Your task to perform on an android device: Search for the new Nintendo switch on Best Buy Image 0: 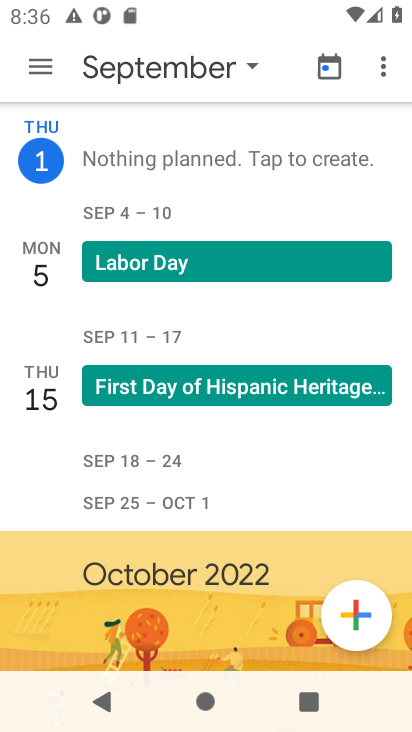
Step 0: press home button
Your task to perform on an android device: Search for the new Nintendo switch on Best Buy Image 1: 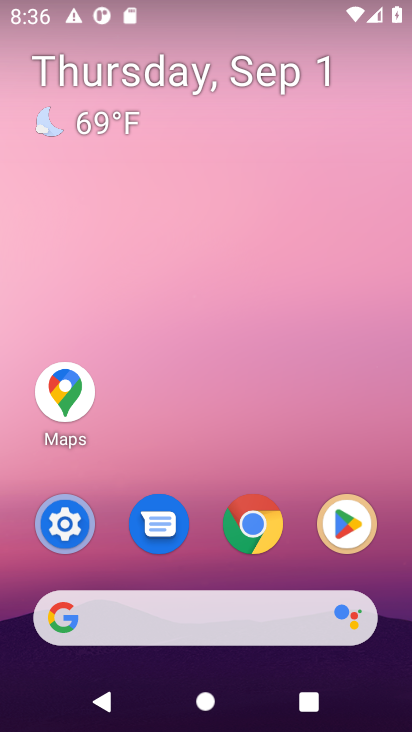
Step 1: click (247, 534)
Your task to perform on an android device: Search for the new Nintendo switch on Best Buy Image 2: 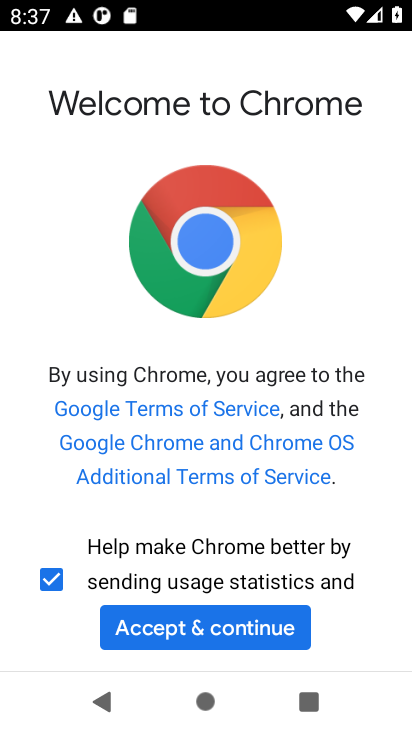
Step 2: click (241, 638)
Your task to perform on an android device: Search for the new Nintendo switch on Best Buy Image 3: 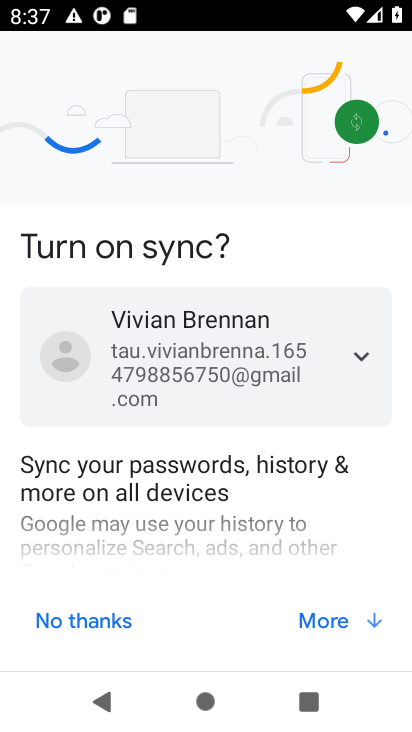
Step 3: click (334, 629)
Your task to perform on an android device: Search for the new Nintendo switch on Best Buy Image 4: 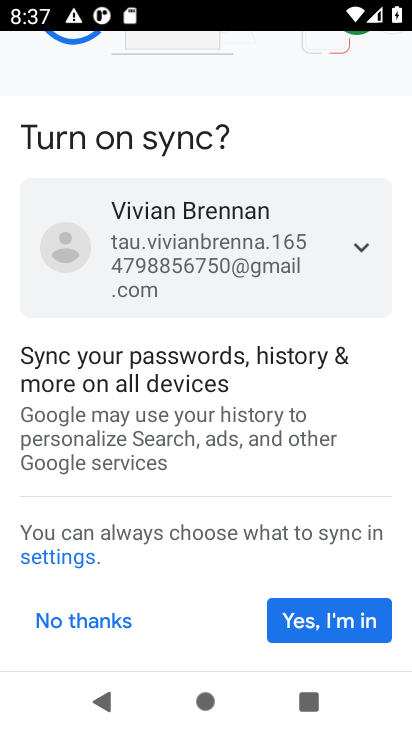
Step 4: click (342, 633)
Your task to perform on an android device: Search for the new Nintendo switch on Best Buy Image 5: 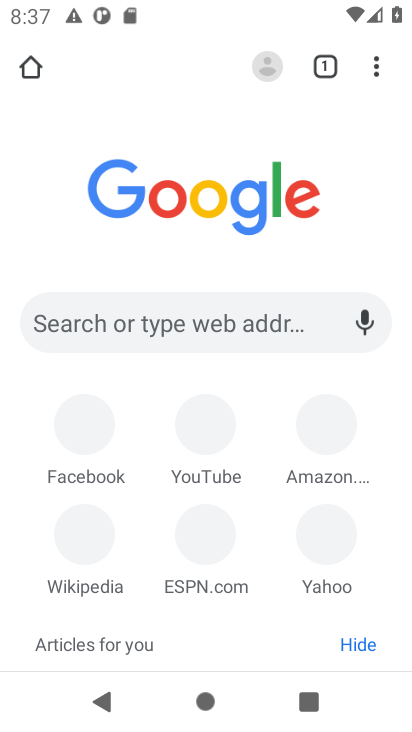
Step 5: click (189, 66)
Your task to perform on an android device: Search for the new Nintendo switch on Best Buy Image 6: 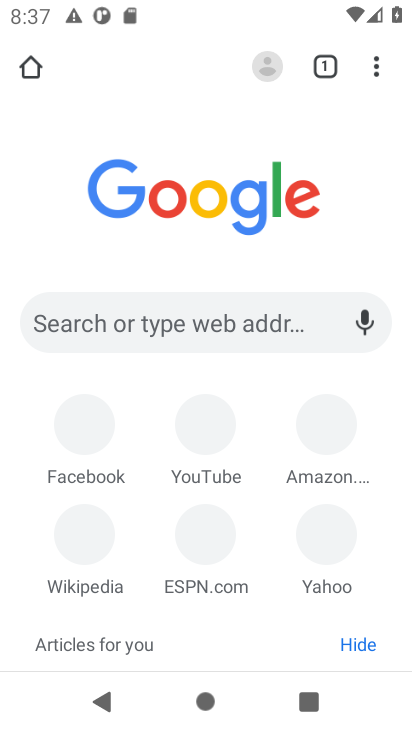
Step 6: click (205, 330)
Your task to perform on an android device: Search for the new Nintendo switch on Best Buy Image 7: 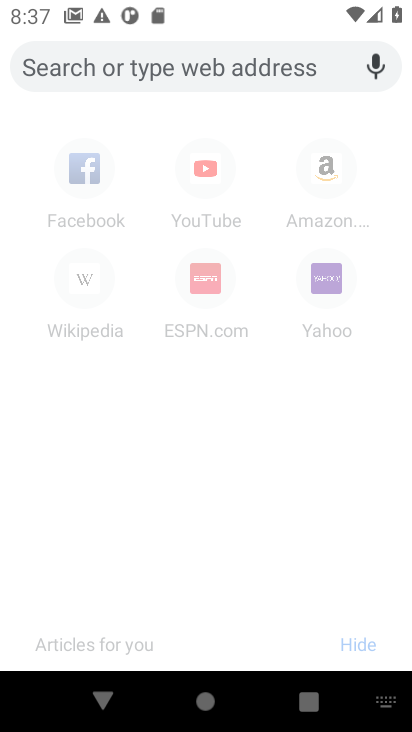
Step 7: type "best buy"
Your task to perform on an android device: Search for the new Nintendo switch on Best Buy Image 8: 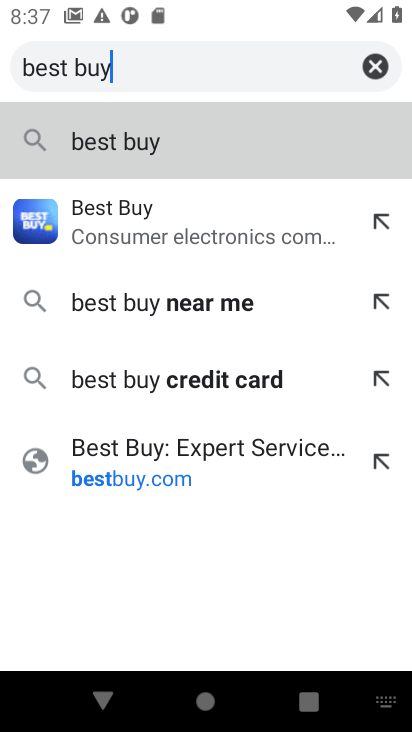
Step 8: click (163, 212)
Your task to perform on an android device: Search for the new Nintendo switch on Best Buy Image 9: 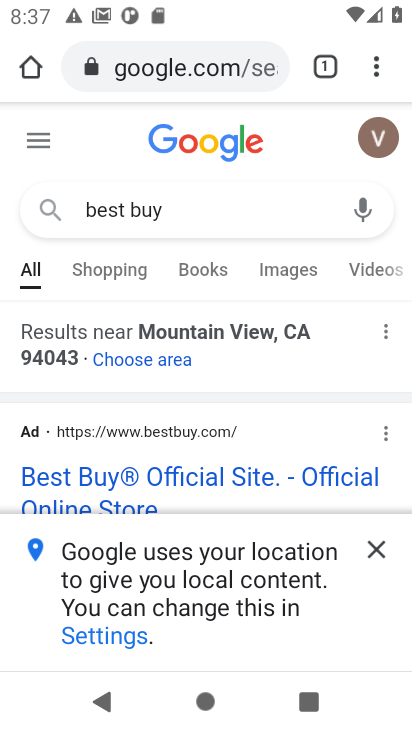
Step 9: click (382, 557)
Your task to perform on an android device: Search for the new Nintendo switch on Best Buy Image 10: 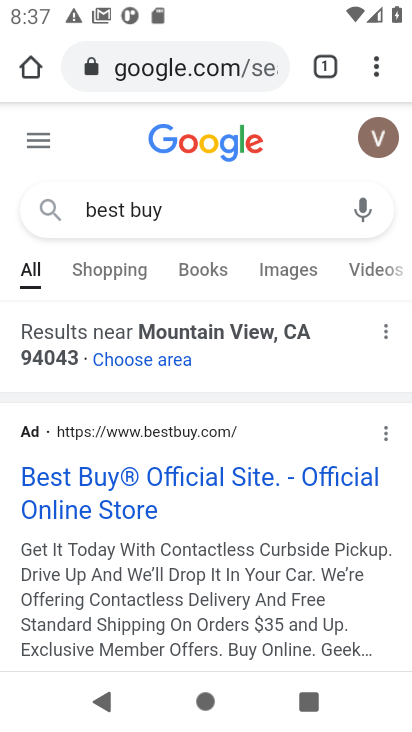
Step 10: click (134, 496)
Your task to perform on an android device: Search for the new Nintendo switch on Best Buy Image 11: 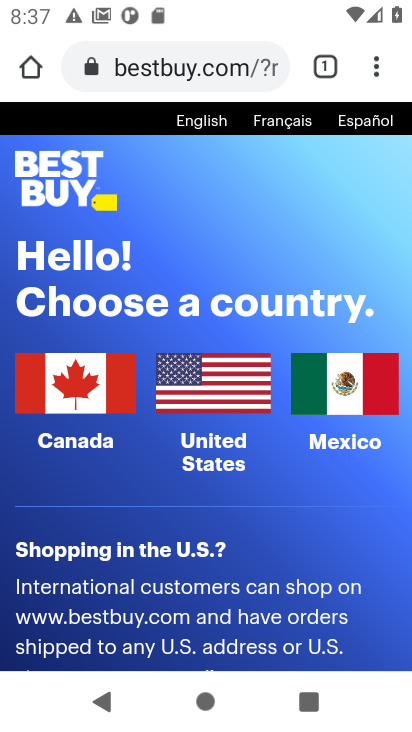
Step 11: click (222, 374)
Your task to perform on an android device: Search for the new Nintendo switch on Best Buy Image 12: 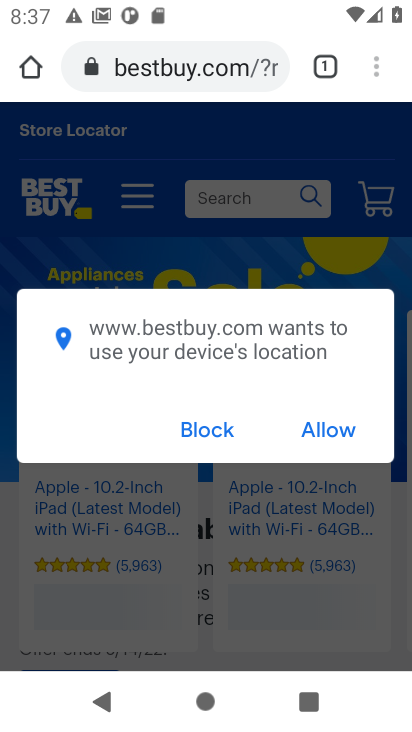
Step 12: click (340, 434)
Your task to perform on an android device: Search for the new Nintendo switch on Best Buy Image 13: 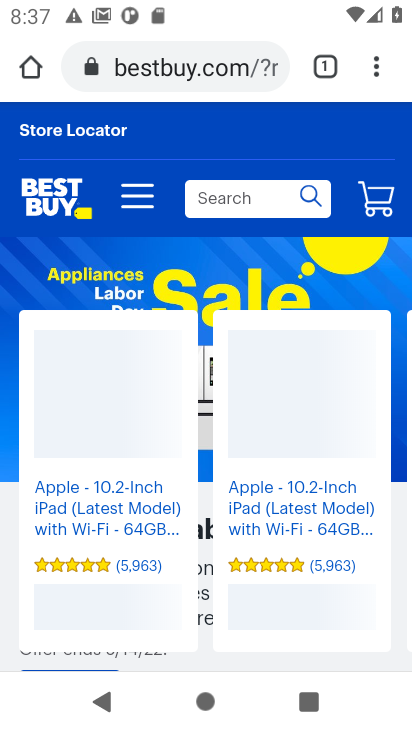
Step 13: click (248, 209)
Your task to perform on an android device: Search for the new Nintendo switch on Best Buy Image 14: 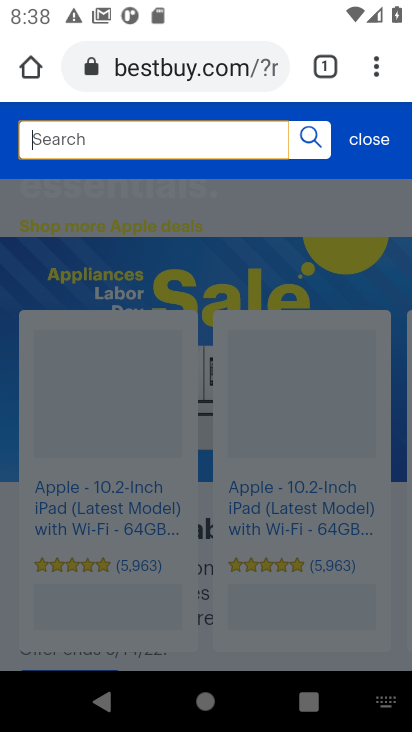
Step 14: type "nintendo switch"
Your task to perform on an android device: Search for the new Nintendo switch on Best Buy Image 15: 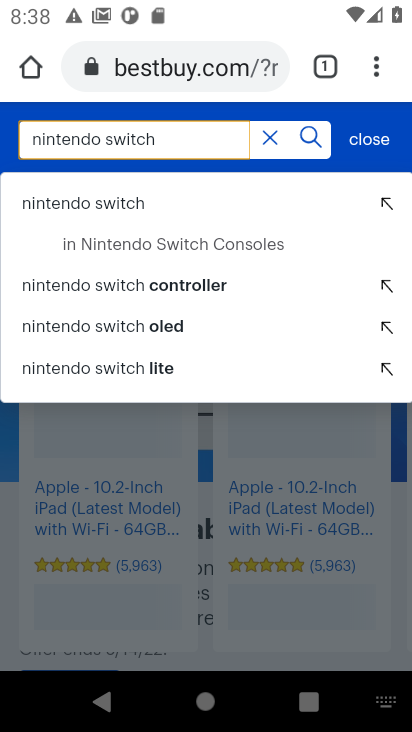
Step 15: click (201, 218)
Your task to perform on an android device: Search for the new Nintendo switch on Best Buy Image 16: 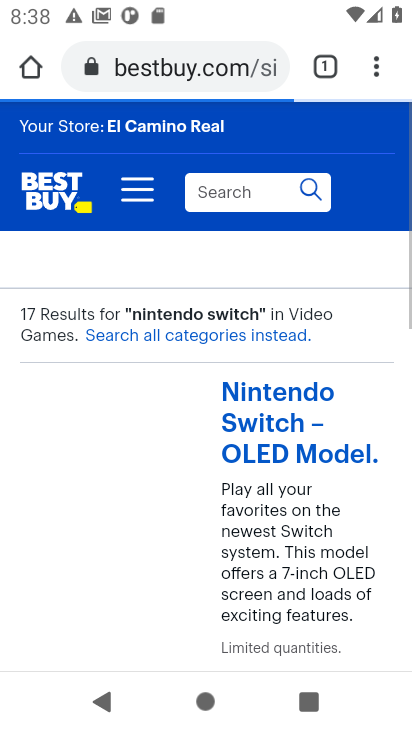
Step 16: press enter
Your task to perform on an android device: Search for the new Nintendo switch on Best Buy Image 17: 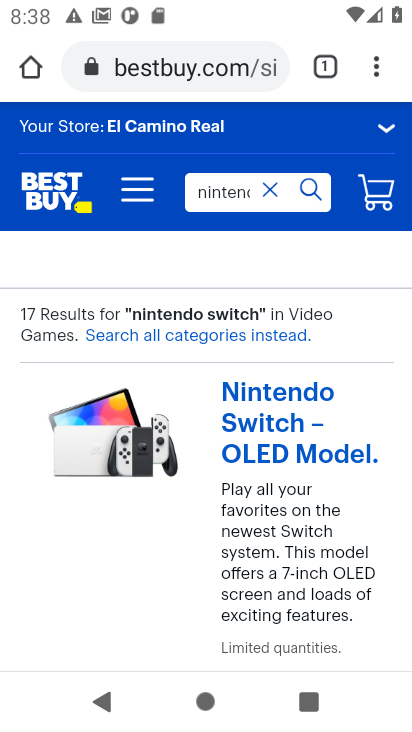
Step 17: task complete